Your task to perform on an android device: move an email to a new category in the gmail app Image 0: 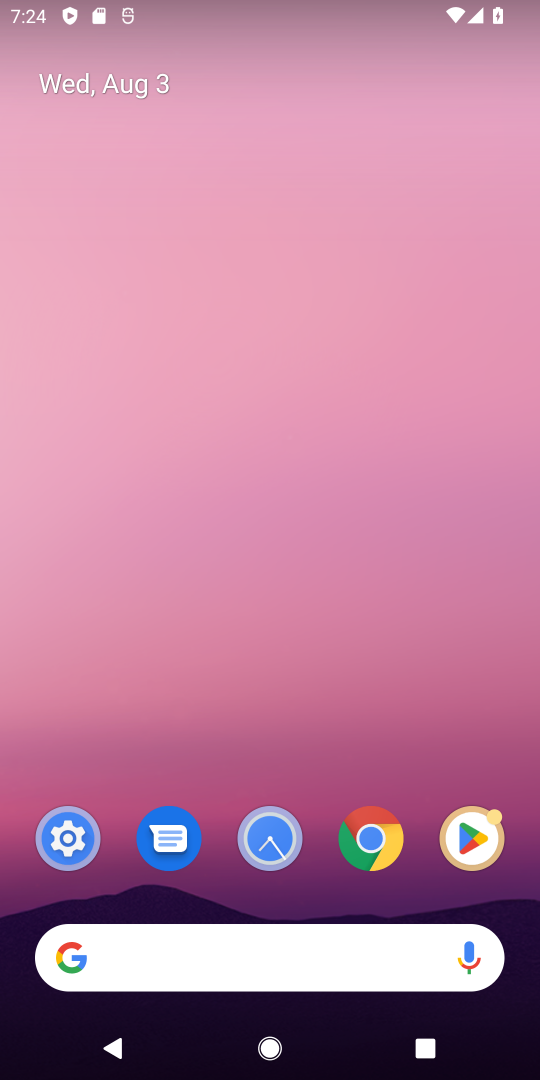
Step 0: drag from (270, 789) to (280, 47)
Your task to perform on an android device: move an email to a new category in the gmail app Image 1: 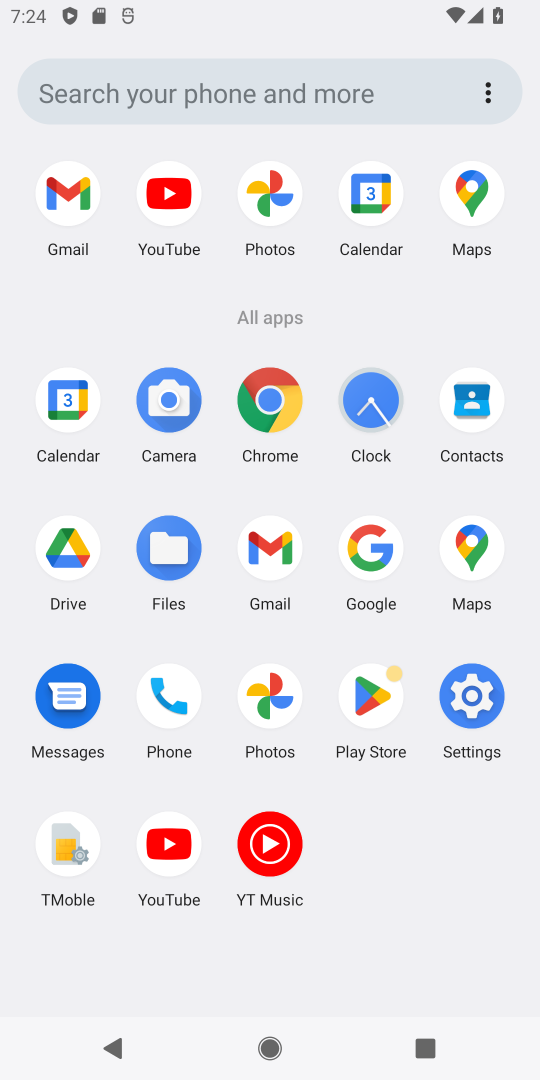
Step 1: click (74, 198)
Your task to perform on an android device: move an email to a new category in the gmail app Image 2: 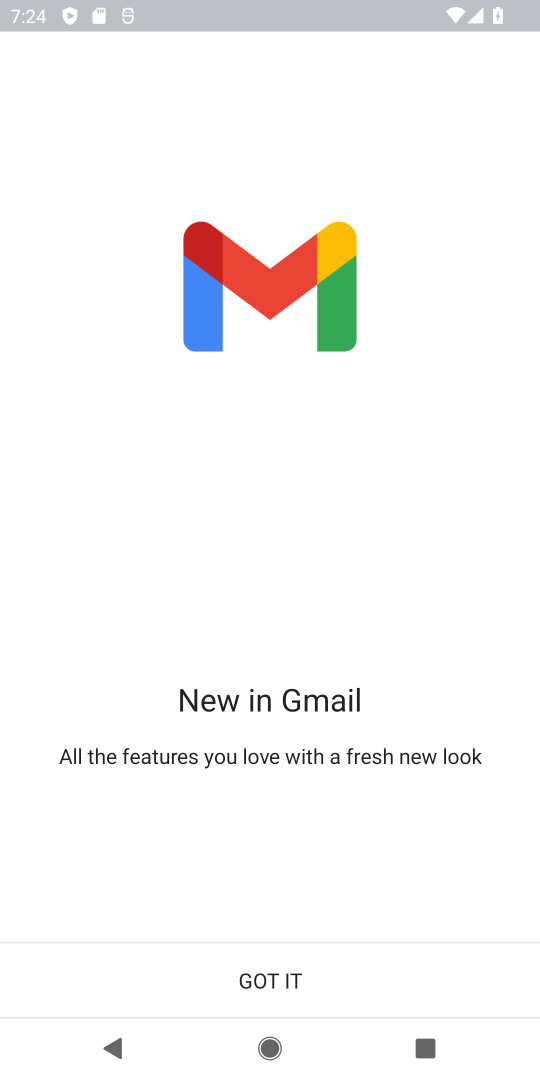
Step 2: click (311, 959)
Your task to perform on an android device: move an email to a new category in the gmail app Image 3: 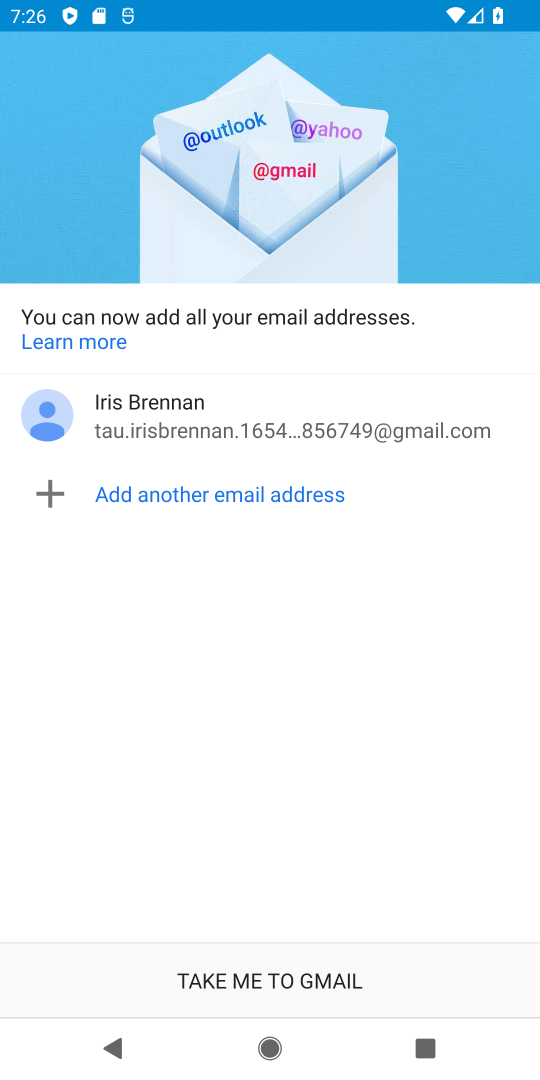
Step 3: click (343, 949)
Your task to perform on an android device: move an email to a new category in the gmail app Image 4: 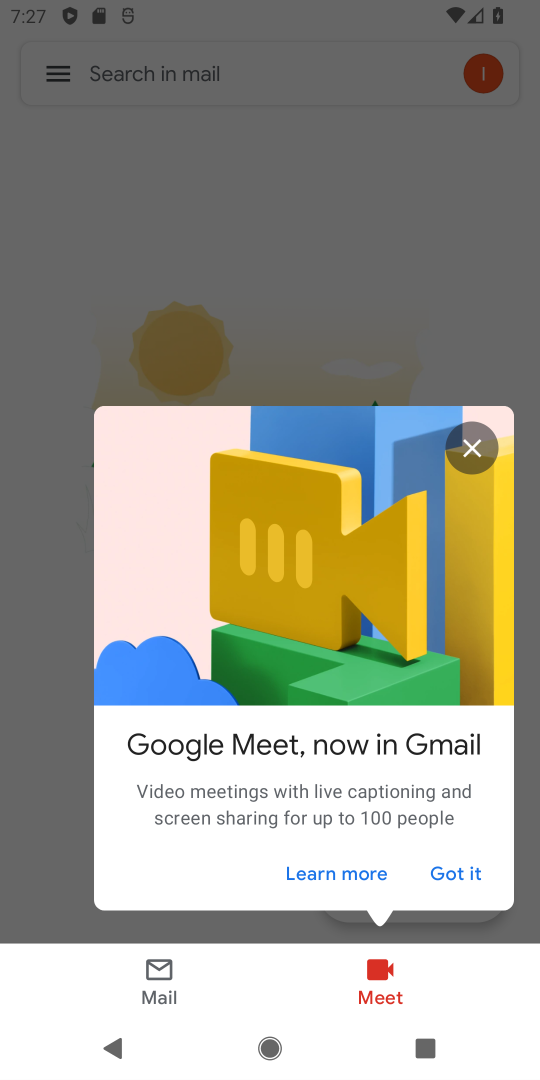
Step 4: click (458, 877)
Your task to perform on an android device: move an email to a new category in the gmail app Image 5: 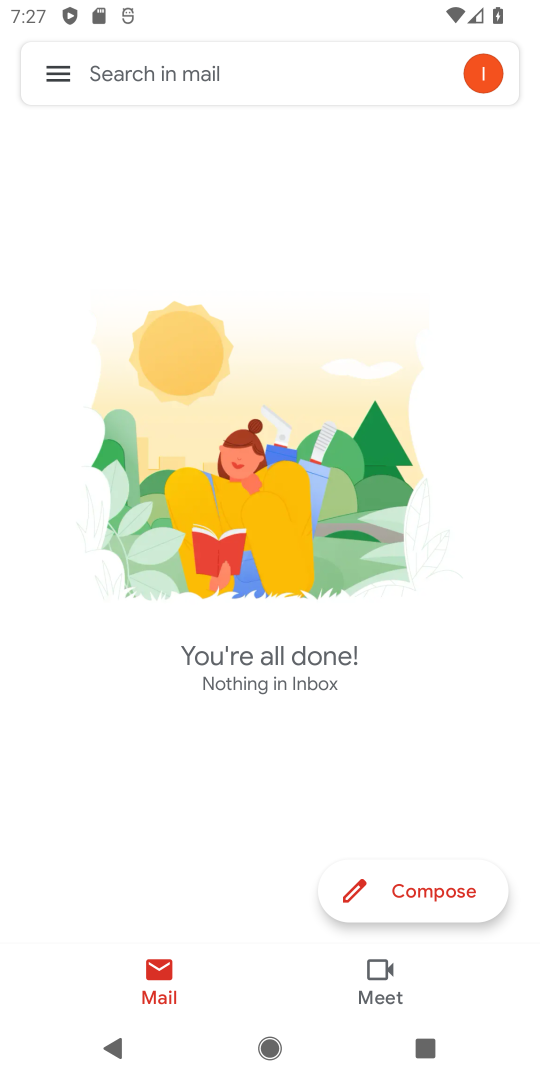
Step 5: click (62, 70)
Your task to perform on an android device: move an email to a new category in the gmail app Image 6: 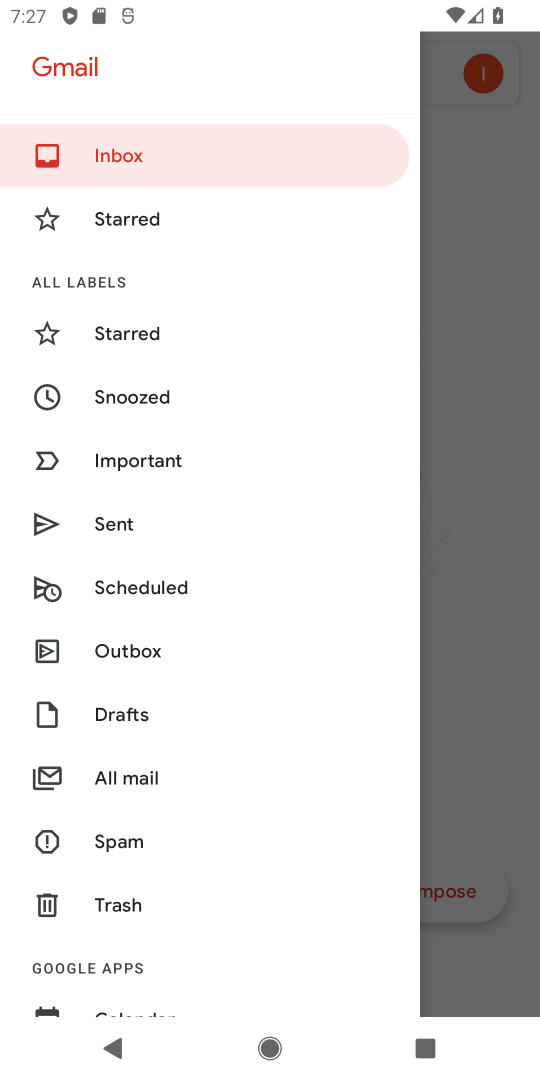
Step 6: click (88, 778)
Your task to perform on an android device: move an email to a new category in the gmail app Image 7: 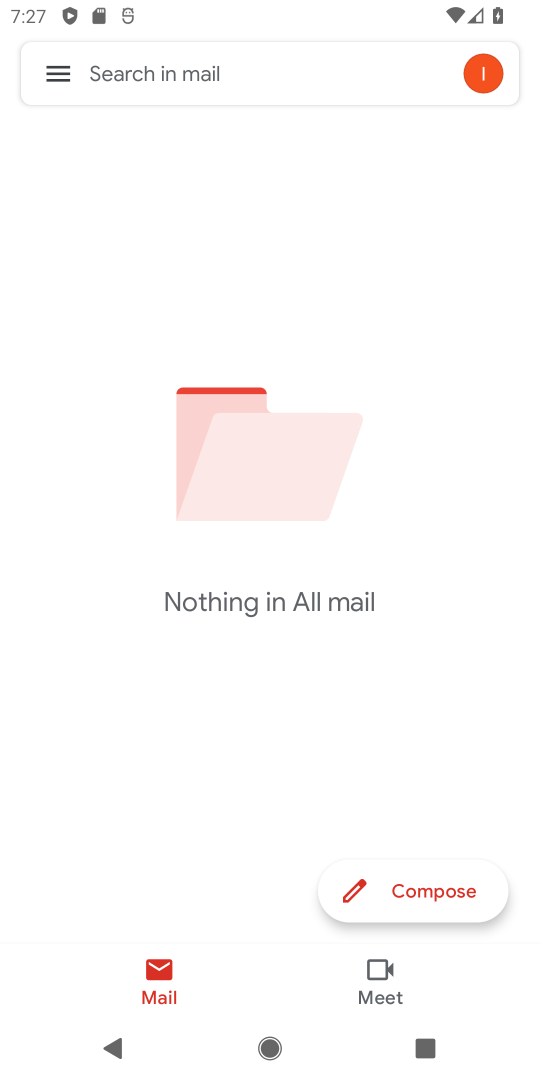
Step 7: task complete